Your task to perform on an android device: turn on data saver in the chrome app Image 0: 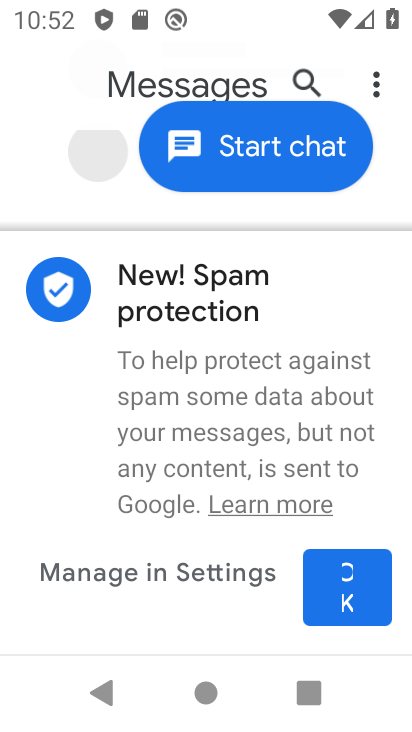
Step 0: press home button
Your task to perform on an android device: turn on data saver in the chrome app Image 1: 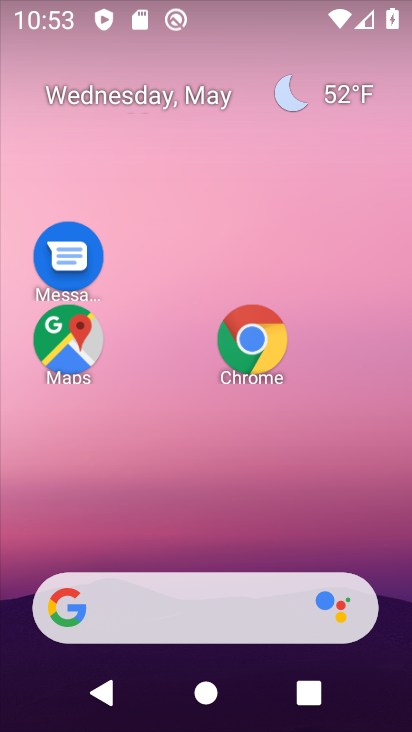
Step 1: drag from (202, 528) to (196, 102)
Your task to perform on an android device: turn on data saver in the chrome app Image 2: 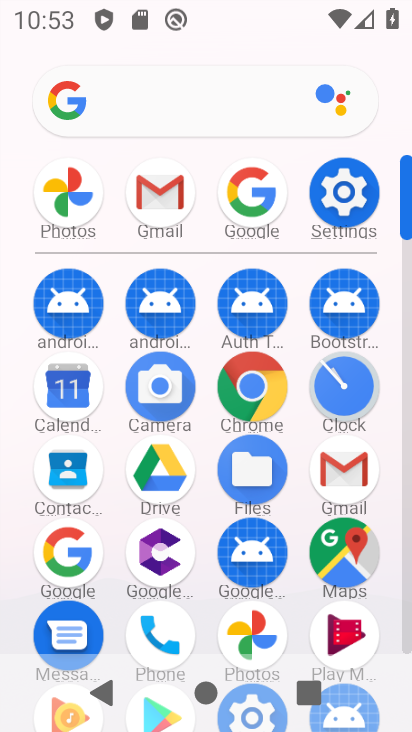
Step 2: click (251, 390)
Your task to perform on an android device: turn on data saver in the chrome app Image 3: 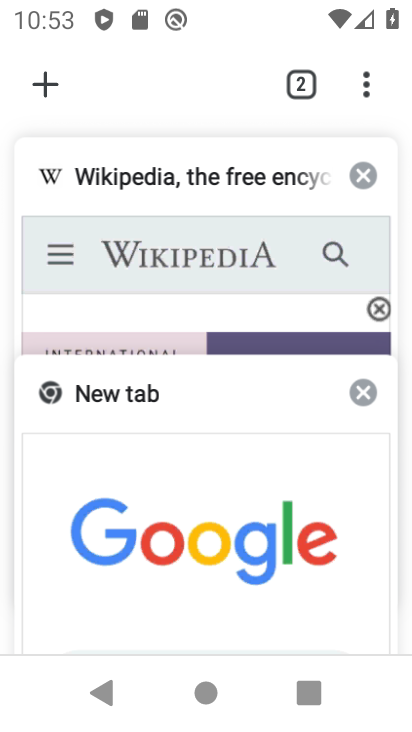
Step 3: click (351, 83)
Your task to perform on an android device: turn on data saver in the chrome app Image 4: 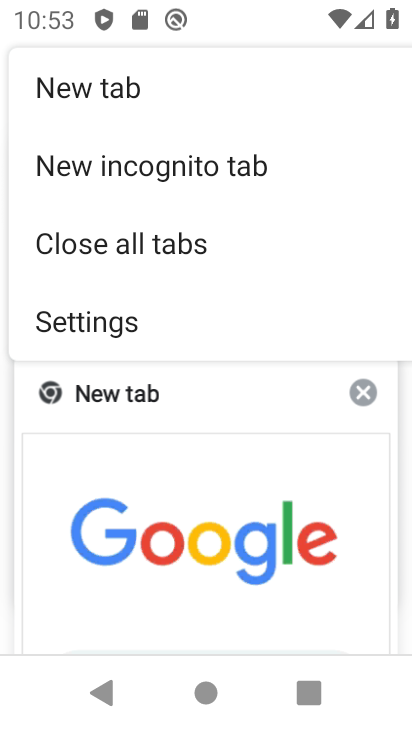
Step 4: click (190, 321)
Your task to perform on an android device: turn on data saver in the chrome app Image 5: 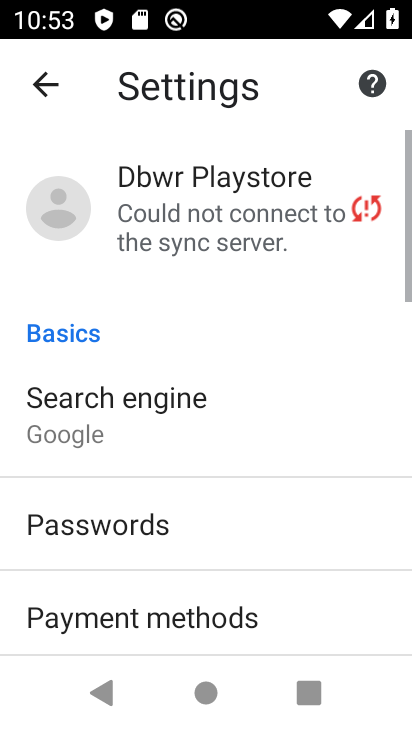
Step 5: drag from (233, 508) to (212, 45)
Your task to perform on an android device: turn on data saver in the chrome app Image 6: 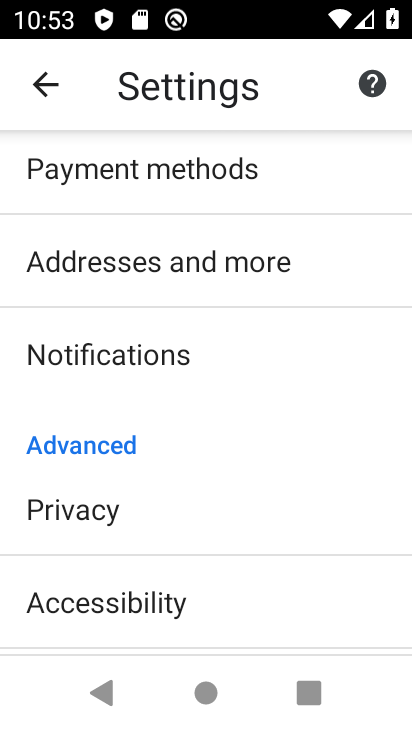
Step 6: drag from (224, 541) to (197, 242)
Your task to perform on an android device: turn on data saver in the chrome app Image 7: 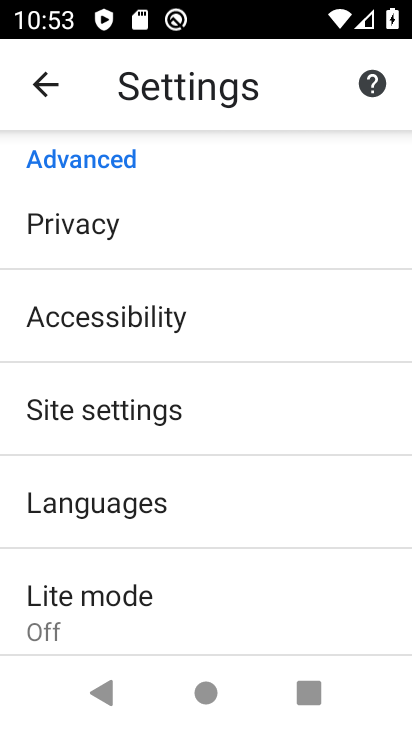
Step 7: click (142, 607)
Your task to perform on an android device: turn on data saver in the chrome app Image 8: 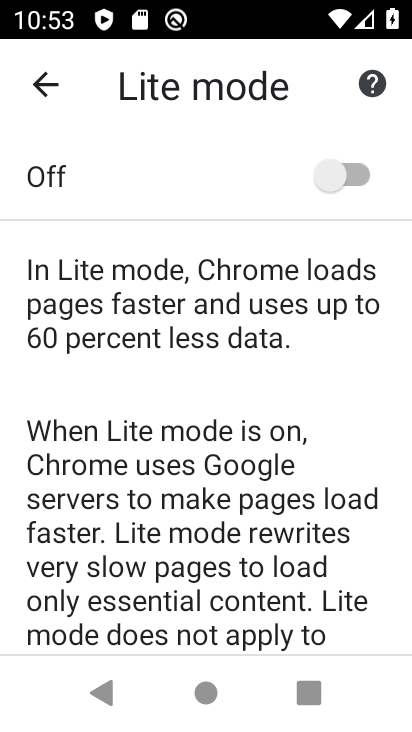
Step 8: click (335, 167)
Your task to perform on an android device: turn on data saver in the chrome app Image 9: 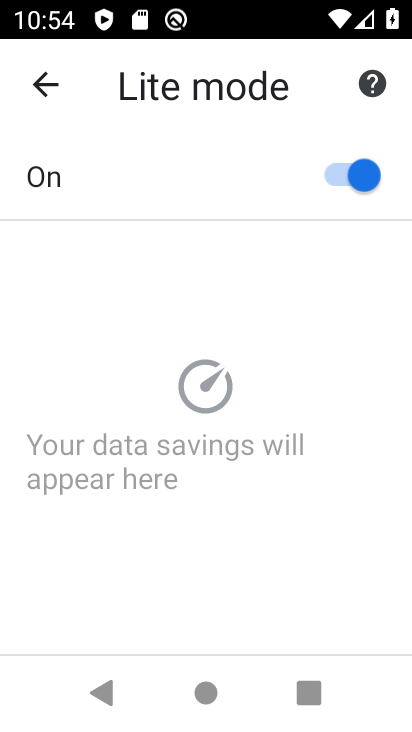
Step 9: task complete